Your task to perform on an android device: Go to wifi settings Image 0: 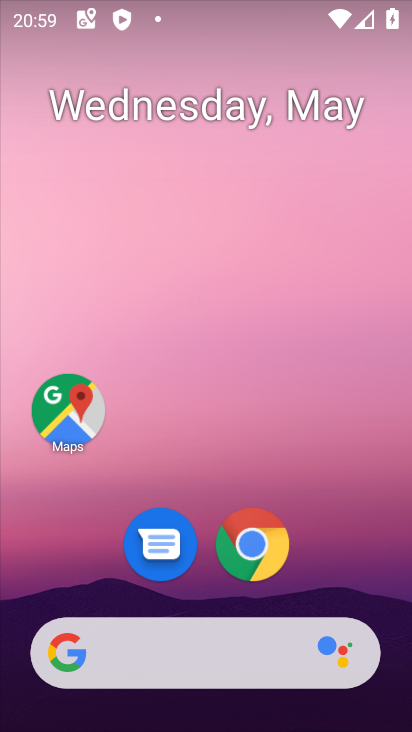
Step 0: drag from (266, 16) to (247, 680)
Your task to perform on an android device: Go to wifi settings Image 1: 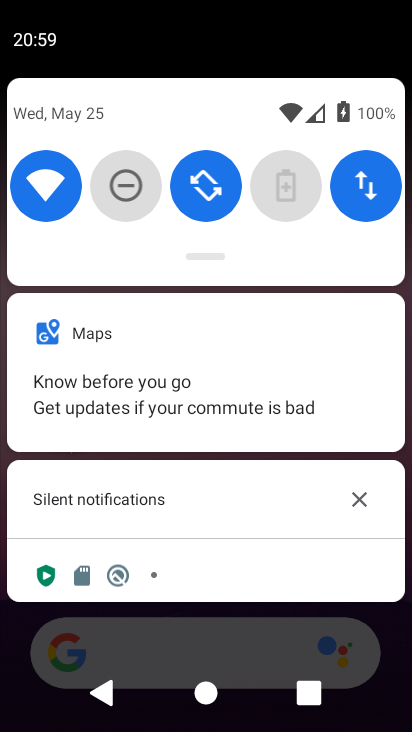
Step 1: click (47, 189)
Your task to perform on an android device: Go to wifi settings Image 2: 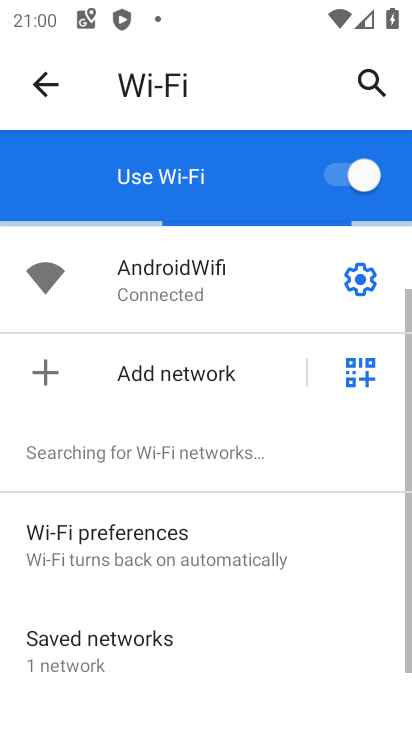
Step 2: task complete